Your task to perform on an android device: change timer sound Image 0: 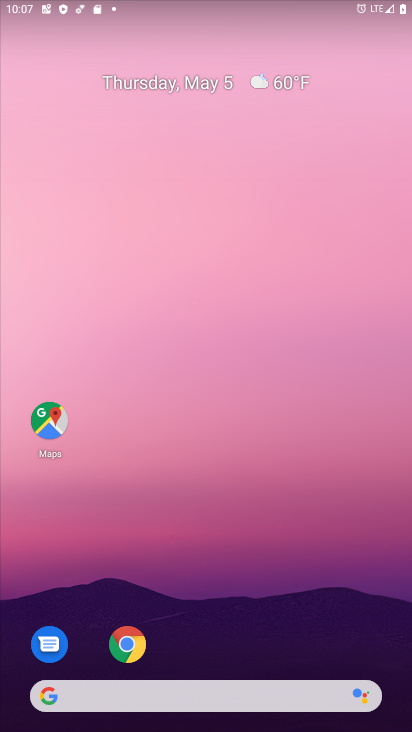
Step 0: drag from (217, 453) to (272, 57)
Your task to perform on an android device: change timer sound Image 1: 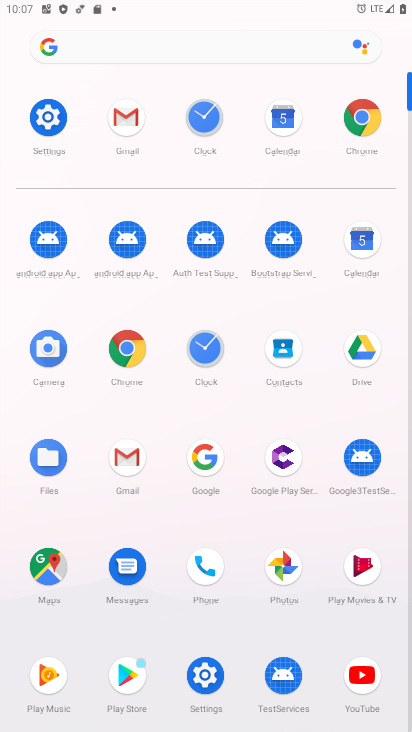
Step 1: click (217, 352)
Your task to perform on an android device: change timer sound Image 2: 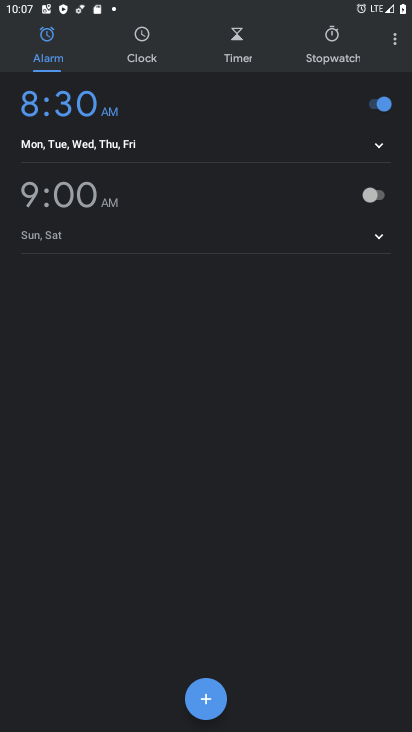
Step 2: click (395, 46)
Your task to perform on an android device: change timer sound Image 3: 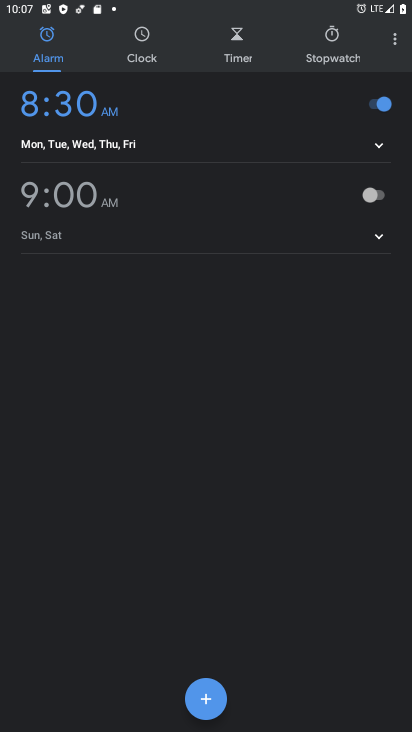
Step 3: click (399, 40)
Your task to perform on an android device: change timer sound Image 4: 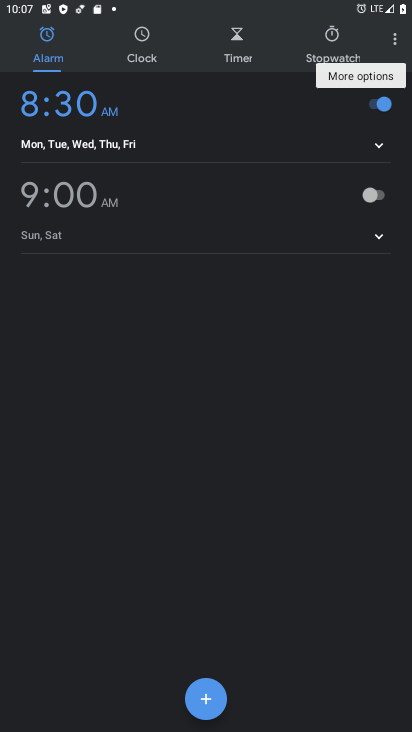
Step 4: click (373, 78)
Your task to perform on an android device: change timer sound Image 5: 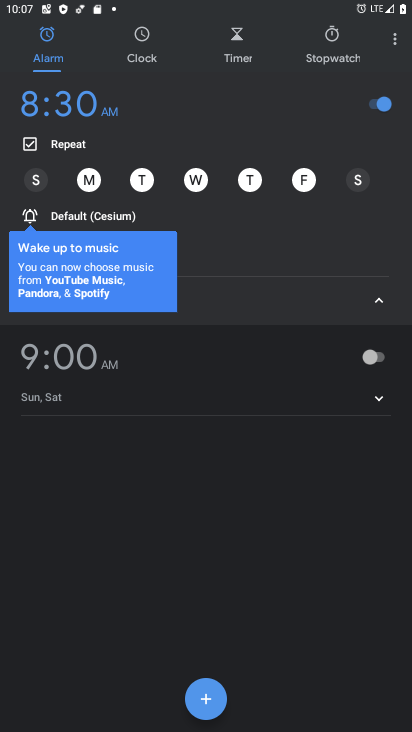
Step 5: click (397, 44)
Your task to perform on an android device: change timer sound Image 6: 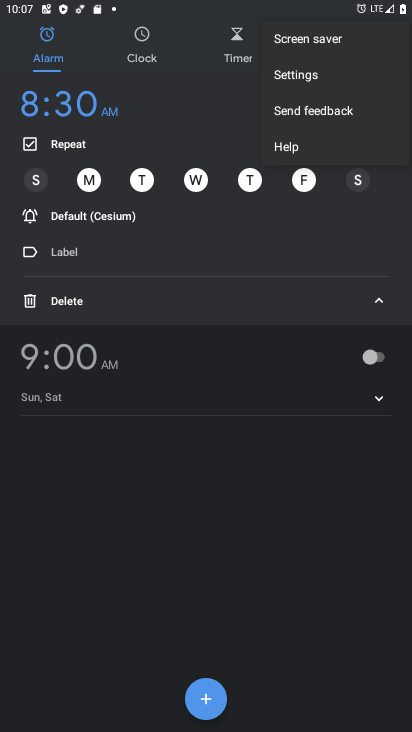
Step 6: click (318, 452)
Your task to perform on an android device: change timer sound Image 7: 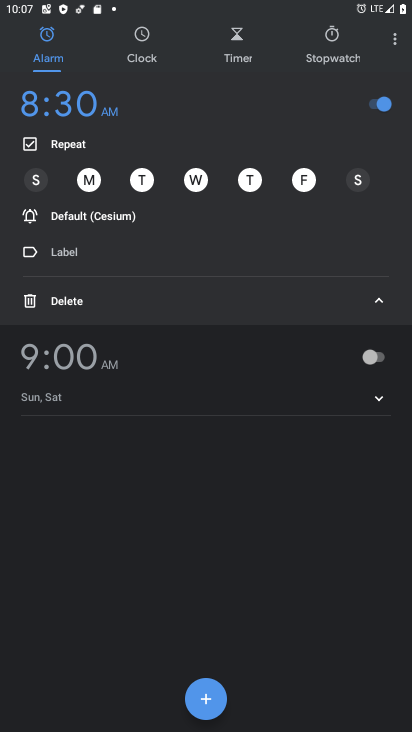
Step 7: click (398, 43)
Your task to perform on an android device: change timer sound Image 8: 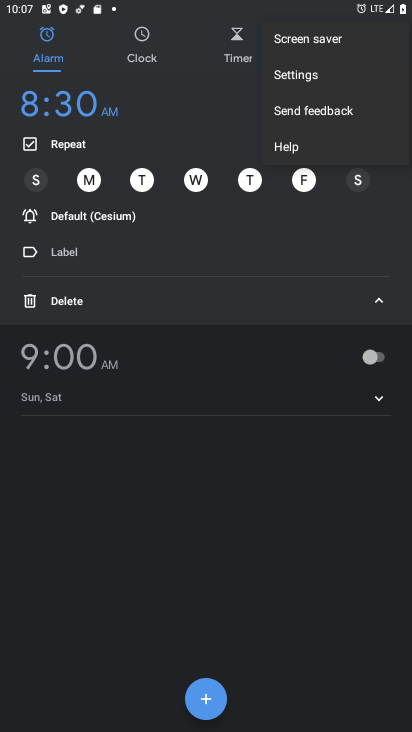
Step 8: click (336, 70)
Your task to perform on an android device: change timer sound Image 9: 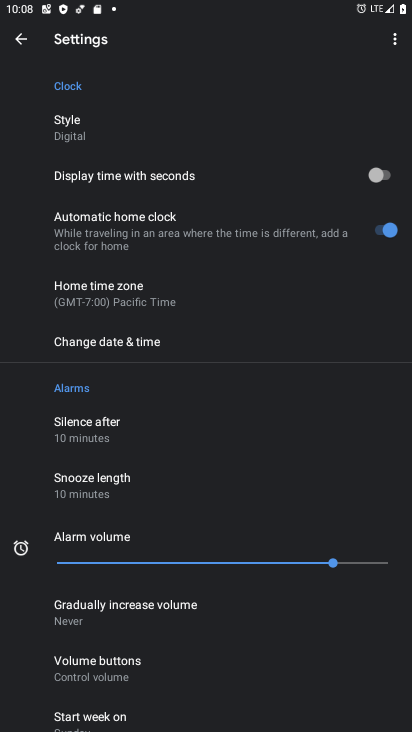
Step 9: drag from (123, 664) to (145, 322)
Your task to perform on an android device: change timer sound Image 10: 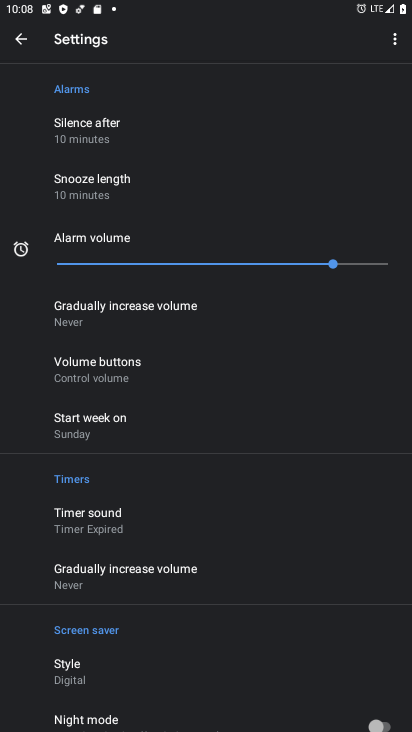
Step 10: click (128, 523)
Your task to perform on an android device: change timer sound Image 11: 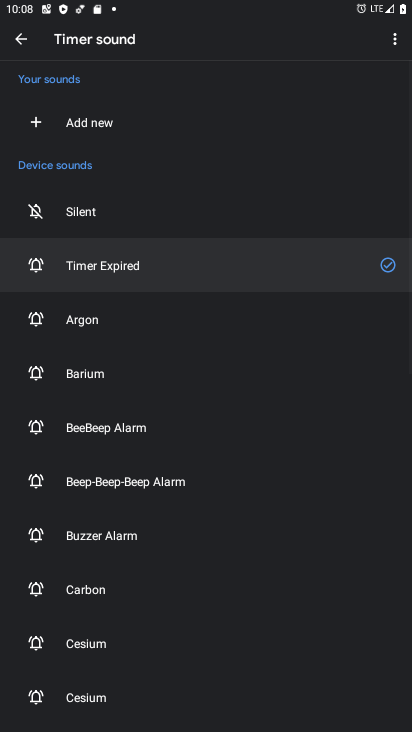
Step 11: click (332, 331)
Your task to perform on an android device: change timer sound Image 12: 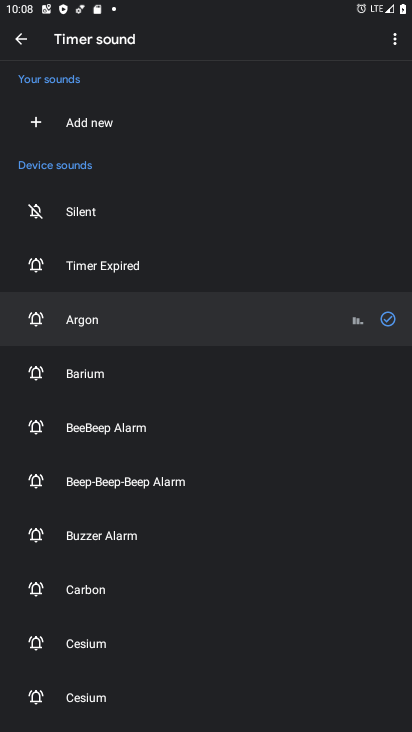
Step 12: task complete